Your task to perform on an android device: Go to Wikipedia Image 0: 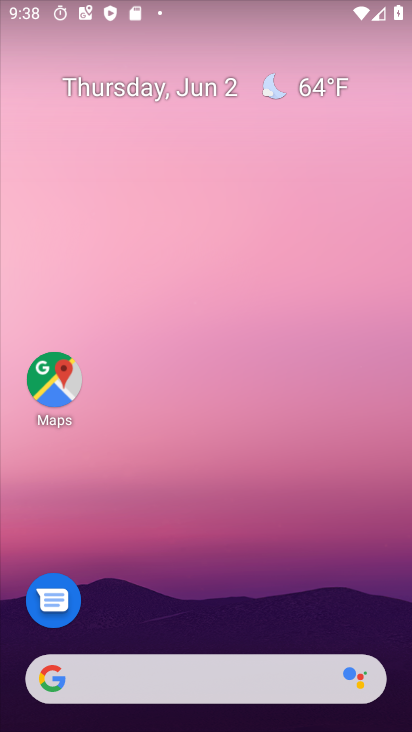
Step 0: drag from (188, 602) to (226, 44)
Your task to perform on an android device: Go to Wikipedia Image 1: 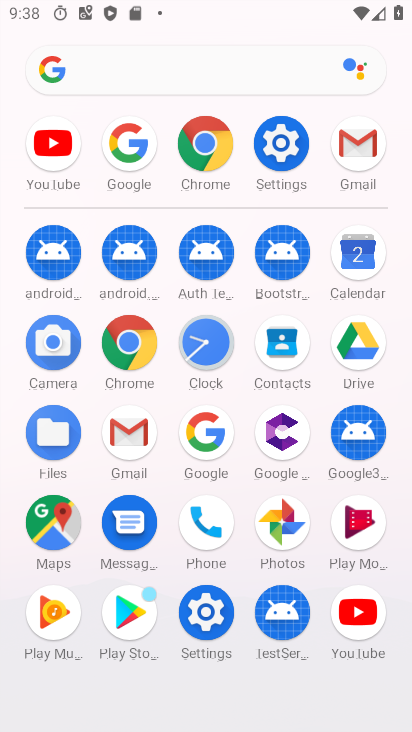
Step 1: click (215, 135)
Your task to perform on an android device: Go to Wikipedia Image 2: 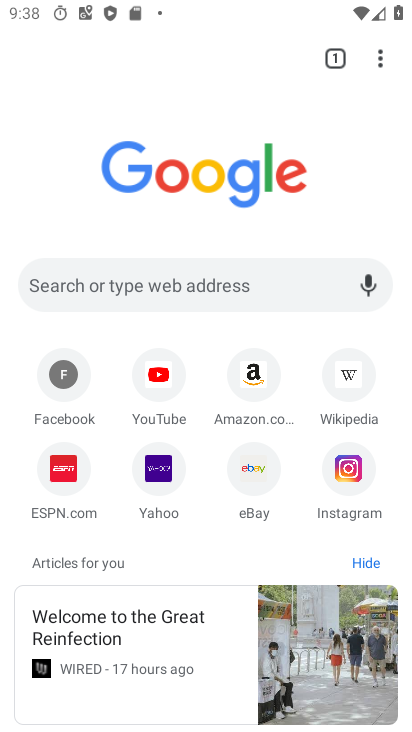
Step 2: click (350, 379)
Your task to perform on an android device: Go to Wikipedia Image 3: 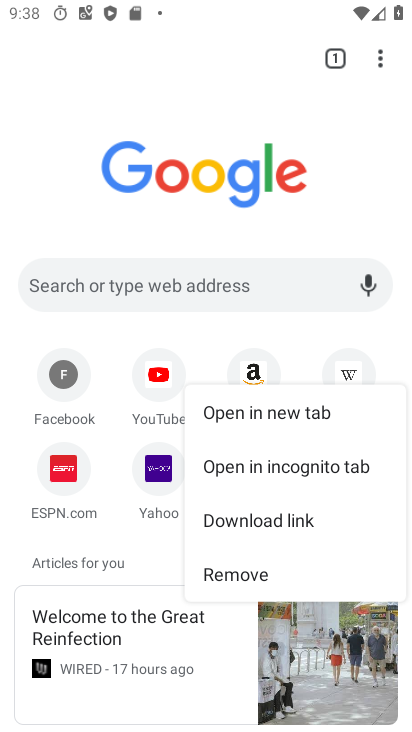
Step 3: click (346, 367)
Your task to perform on an android device: Go to Wikipedia Image 4: 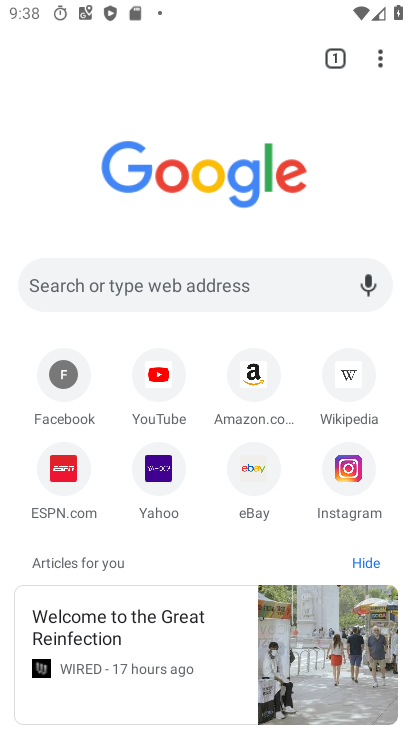
Step 4: click (348, 371)
Your task to perform on an android device: Go to Wikipedia Image 5: 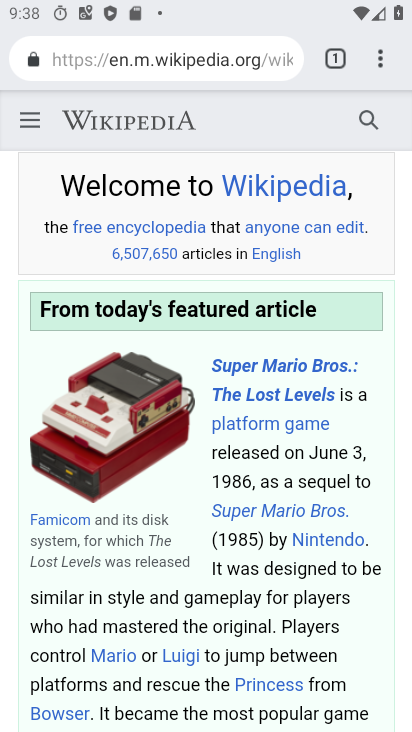
Step 5: task complete